Your task to perform on an android device: check the backup settings in the google photos Image 0: 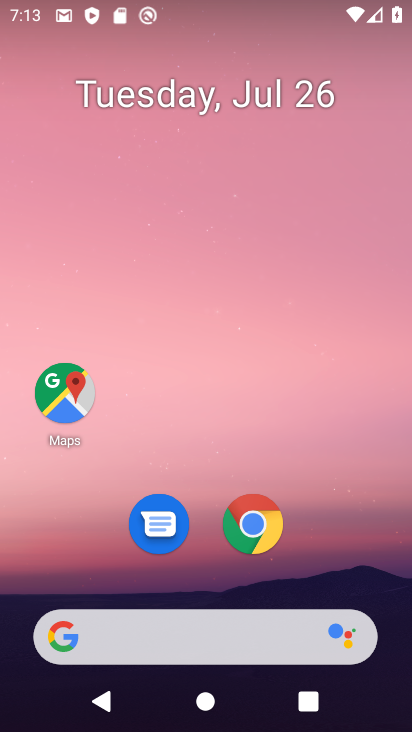
Step 0: drag from (171, 617) to (240, 176)
Your task to perform on an android device: check the backup settings in the google photos Image 1: 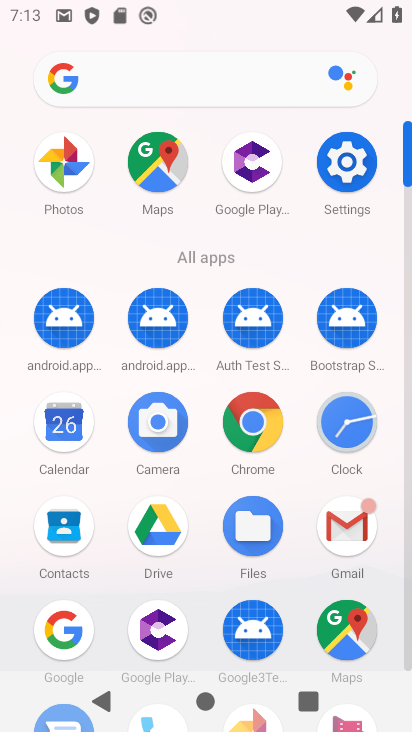
Step 1: click (60, 171)
Your task to perform on an android device: check the backup settings in the google photos Image 2: 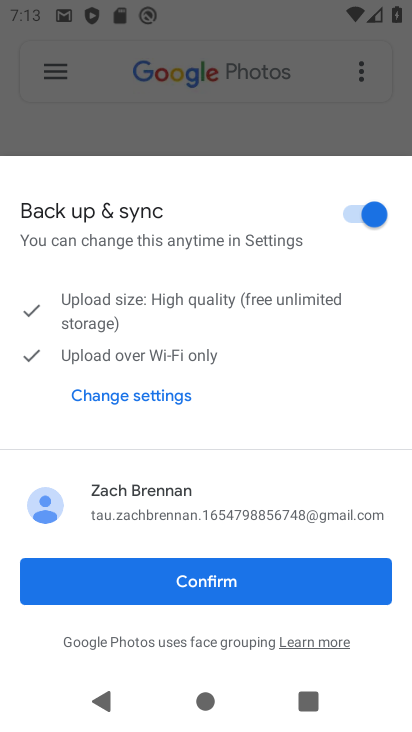
Step 2: click (196, 580)
Your task to perform on an android device: check the backup settings in the google photos Image 3: 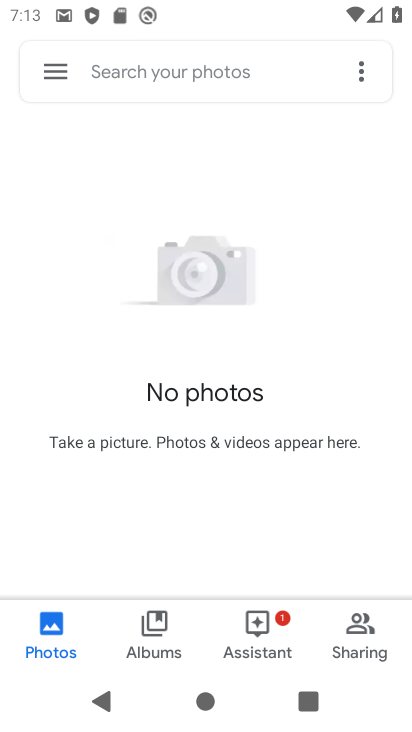
Step 3: click (46, 66)
Your task to perform on an android device: check the backup settings in the google photos Image 4: 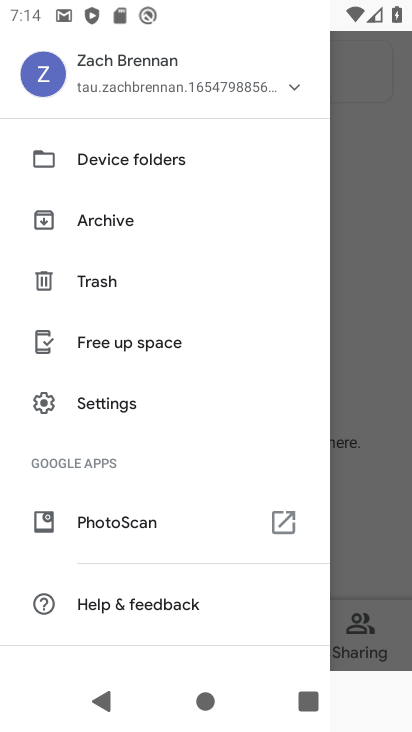
Step 4: click (119, 404)
Your task to perform on an android device: check the backup settings in the google photos Image 5: 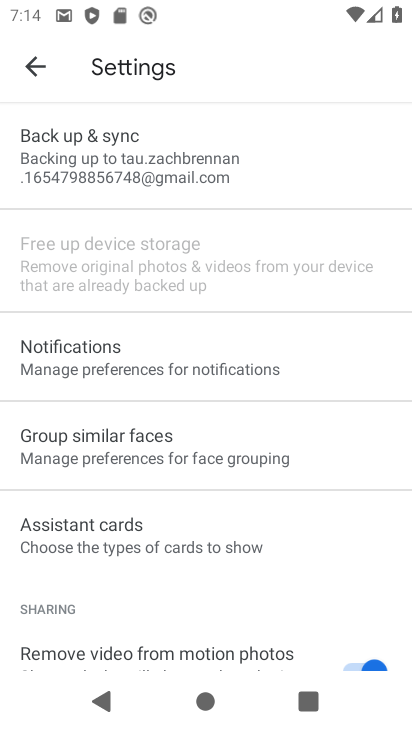
Step 5: click (128, 181)
Your task to perform on an android device: check the backup settings in the google photos Image 6: 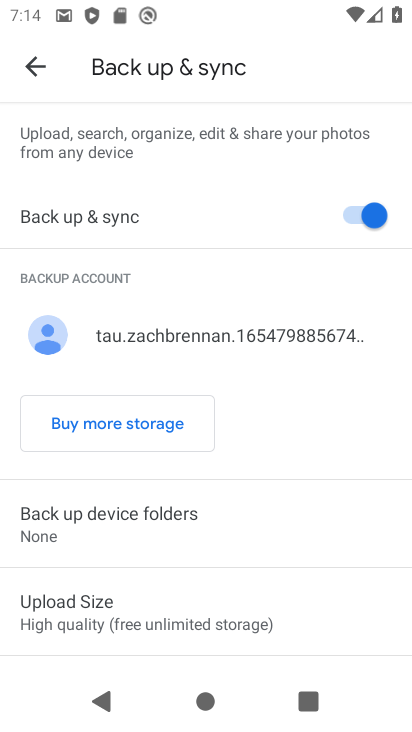
Step 6: task complete